Your task to perform on an android device: Check the news Image 0: 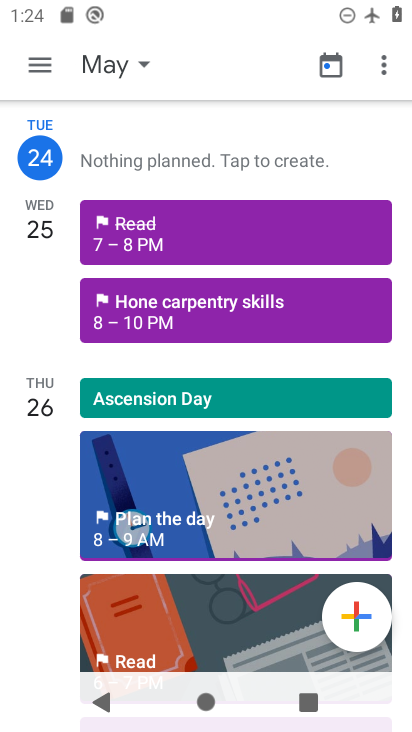
Step 0: press home button
Your task to perform on an android device: Check the news Image 1: 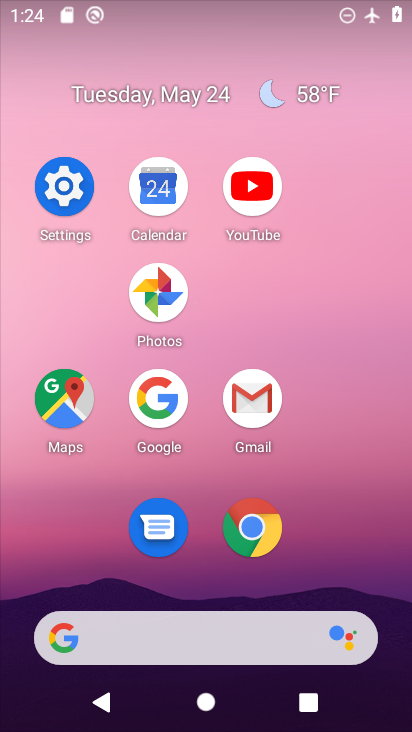
Step 1: click (142, 416)
Your task to perform on an android device: Check the news Image 2: 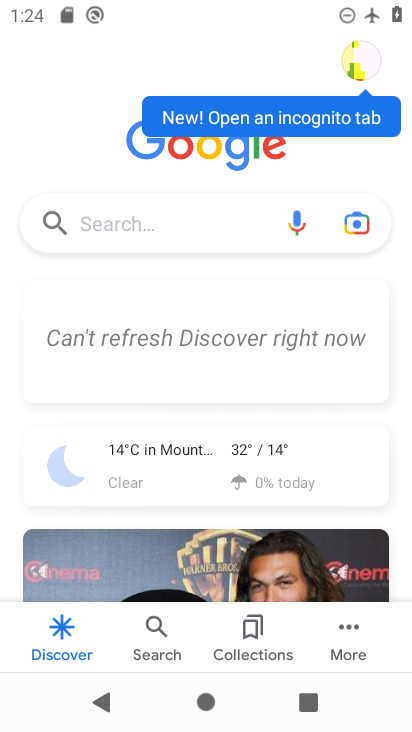
Step 2: click (110, 220)
Your task to perform on an android device: Check the news Image 3: 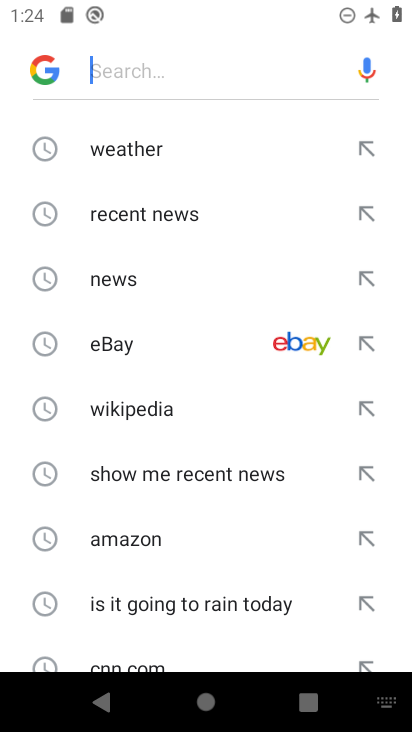
Step 3: click (136, 283)
Your task to perform on an android device: Check the news Image 4: 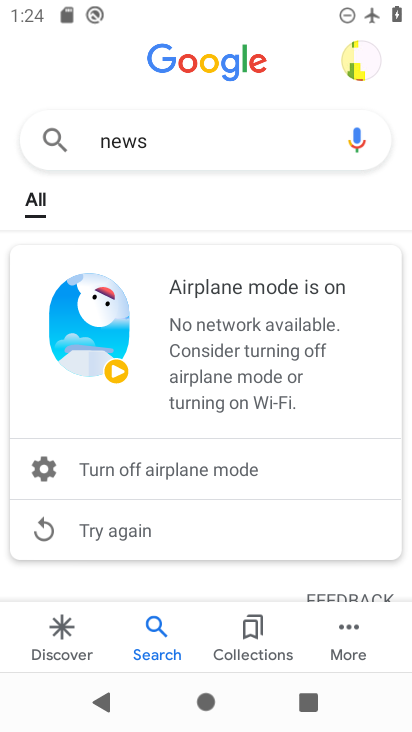
Step 4: task complete